Your task to perform on an android device: open chrome and create a bookmark for the current page Image 0: 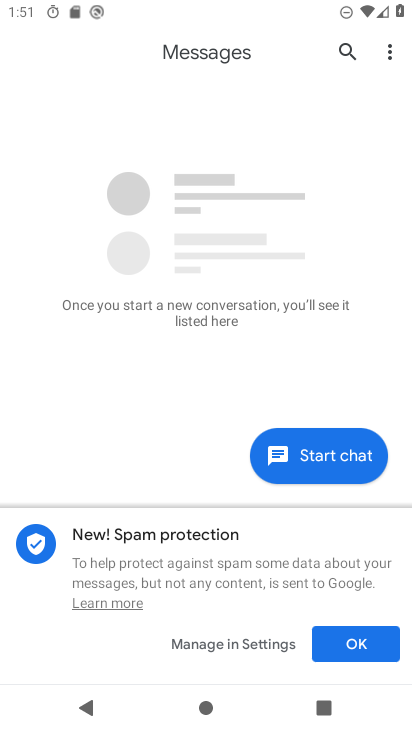
Step 0: press home button
Your task to perform on an android device: open chrome and create a bookmark for the current page Image 1: 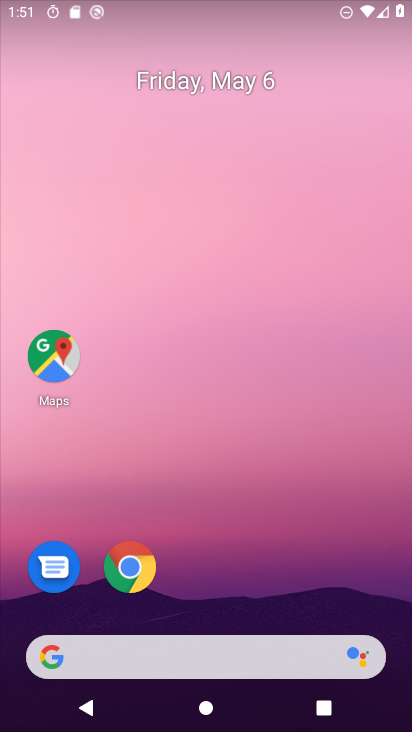
Step 1: click (134, 574)
Your task to perform on an android device: open chrome and create a bookmark for the current page Image 2: 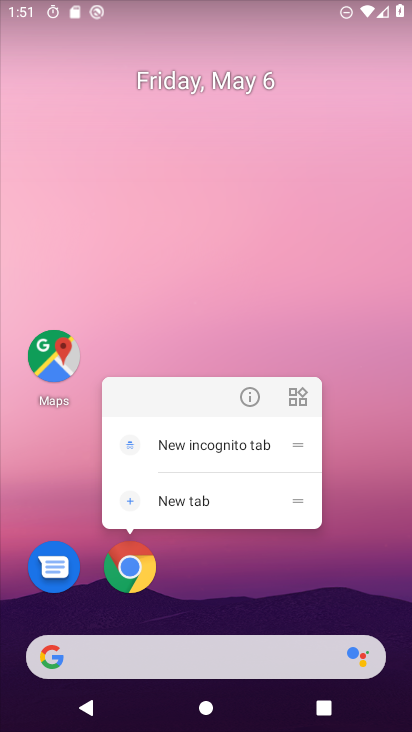
Step 2: click (127, 570)
Your task to perform on an android device: open chrome and create a bookmark for the current page Image 3: 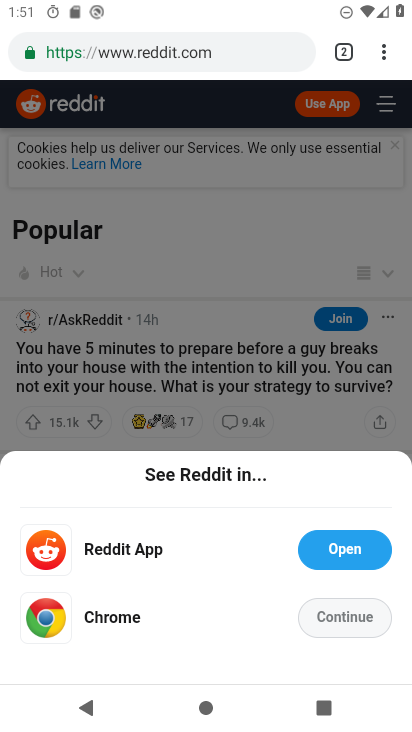
Step 3: click (383, 54)
Your task to perform on an android device: open chrome and create a bookmark for the current page Image 4: 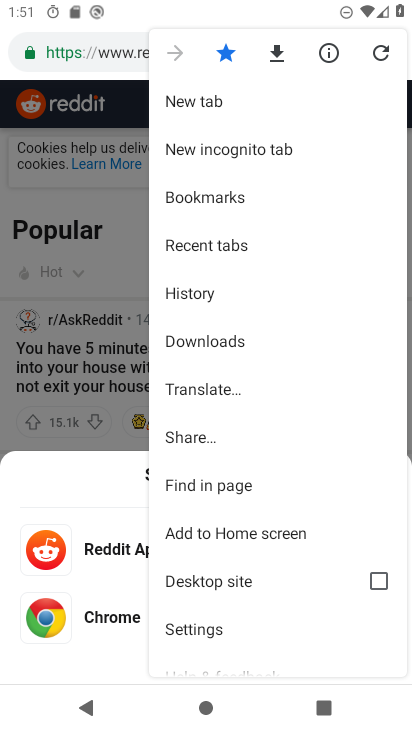
Step 4: task complete